Your task to perform on an android device: turn on showing notifications on the lock screen Image 0: 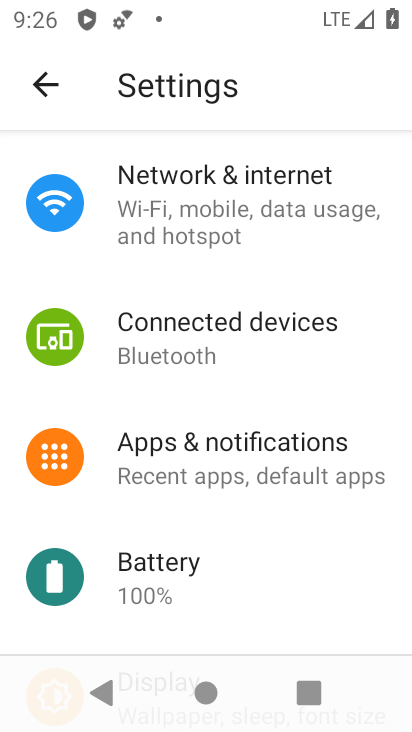
Step 0: click (206, 465)
Your task to perform on an android device: turn on showing notifications on the lock screen Image 1: 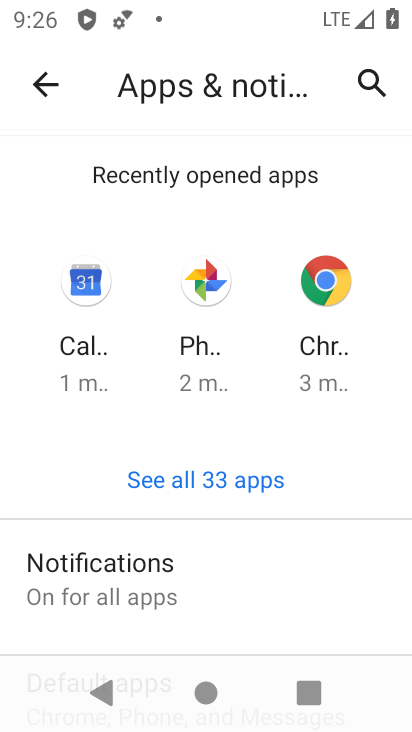
Step 1: click (142, 557)
Your task to perform on an android device: turn on showing notifications on the lock screen Image 2: 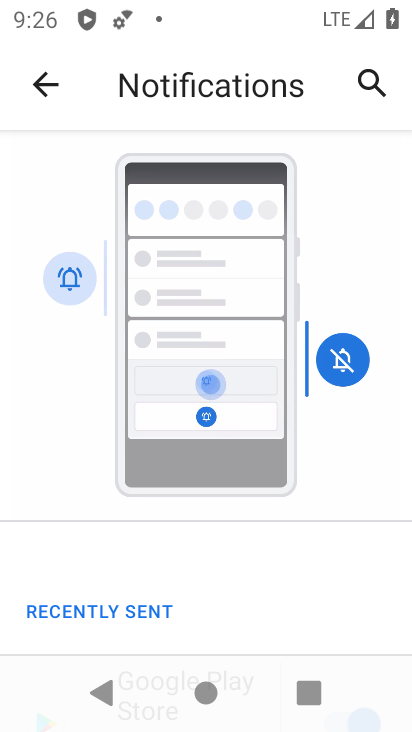
Step 2: drag from (258, 573) to (292, 158)
Your task to perform on an android device: turn on showing notifications on the lock screen Image 3: 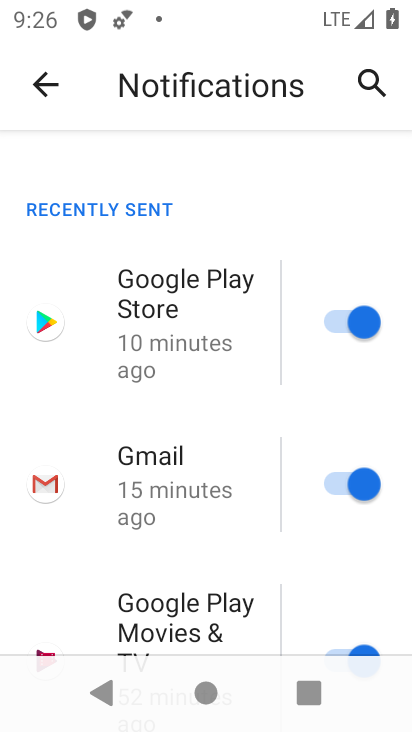
Step 3: drag from (213, 553) to (243, 203)
Your task to perform on an android device: turn on showing notifications on the lock screen Image 4: 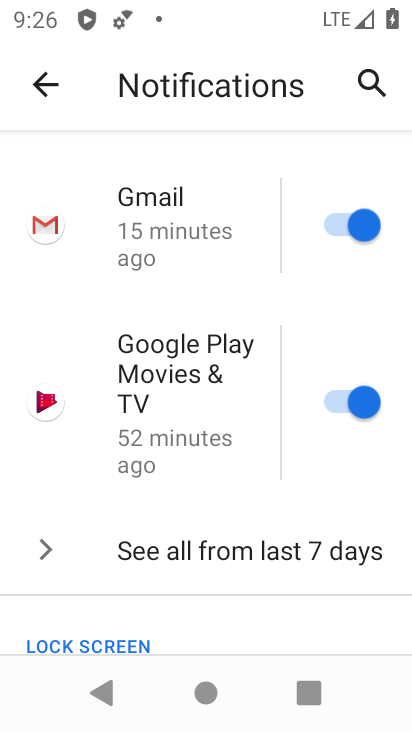
Step 4: drag from (158, 593) to (196, 249)
Your task to perform on an android device: turn on showing notifications on the lock screen Image 5: 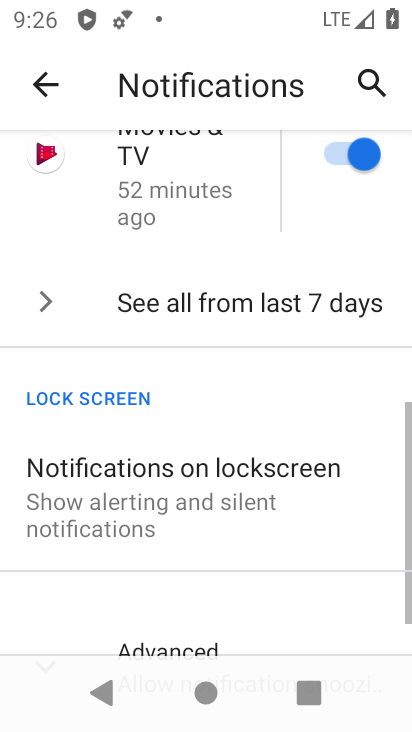
Step 5: drag from (159, 589) to (197, 276)
Your task to perform on an android device: turn on showing notifications on the lock screen Image 6: 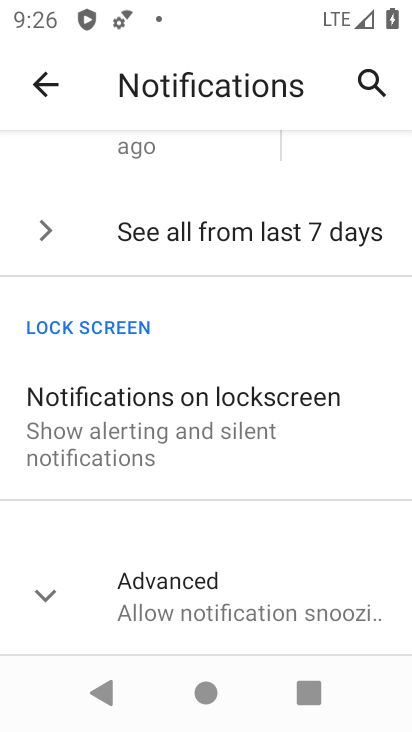
Step 6: click (155, 603)
Your task to perform on an android device: turn on showing notifications on the lock screen Image 7: 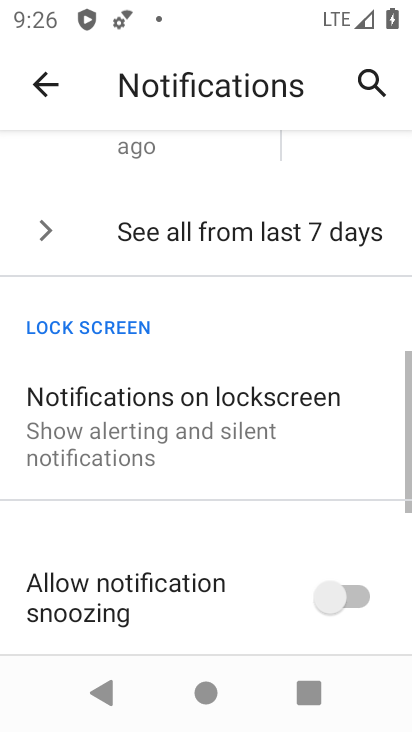
Step 7: drag from (180, 569) to (206, 189)
Your task to perform on an android device: turn on showing notifications on the lock screen Image 8: 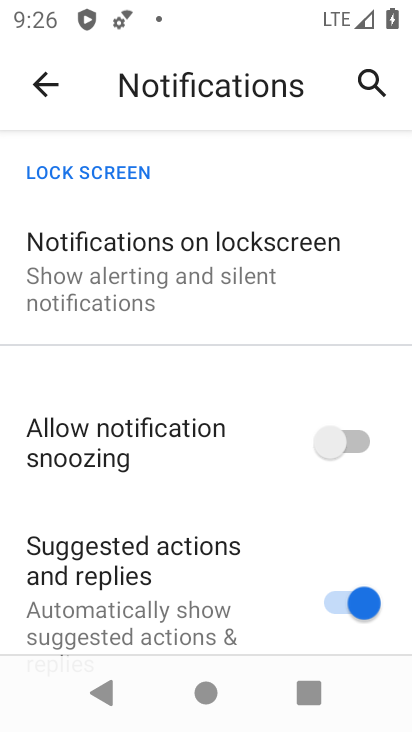
Step 8: drag from (165, 580) to (232, 205)
Your task to perform on an android device: turn on showing notifications on the lock screen Image 9: 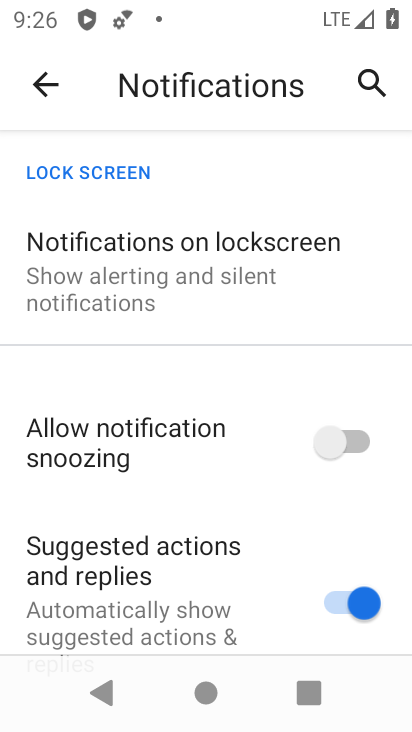
Step 9: click (157, 239)
Your task to perform on an android device: turn on showing notifications on the lock screen Image 10: 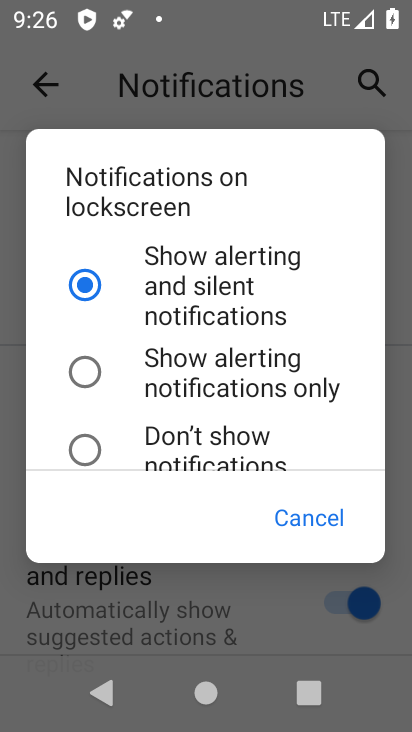
Step 10: click (279, 362)
Your task to perform on an android device: turn on showing notifications on the lock screen Image 11: 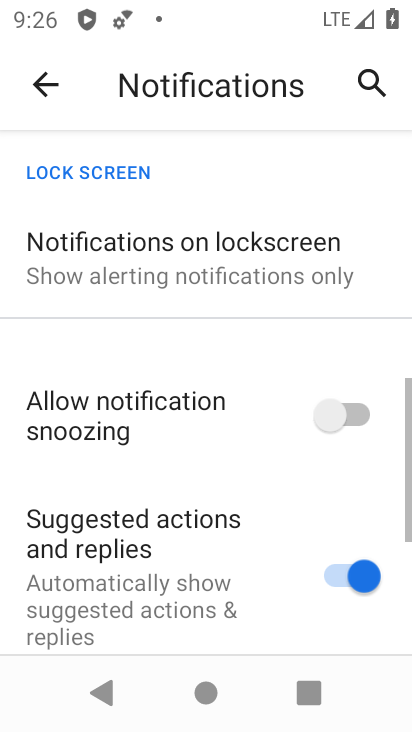
Step 11: task complete